Your task to perform on an android device: Go to Maps Image 0: 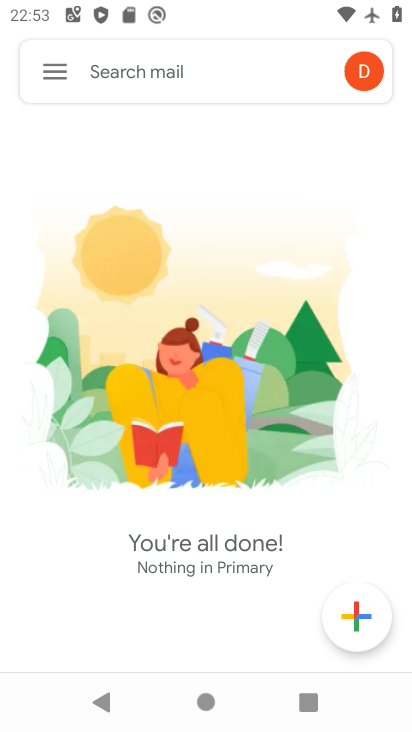
Step 0: press home button
Your task to perform on an android device: Go to Maps Image 1: 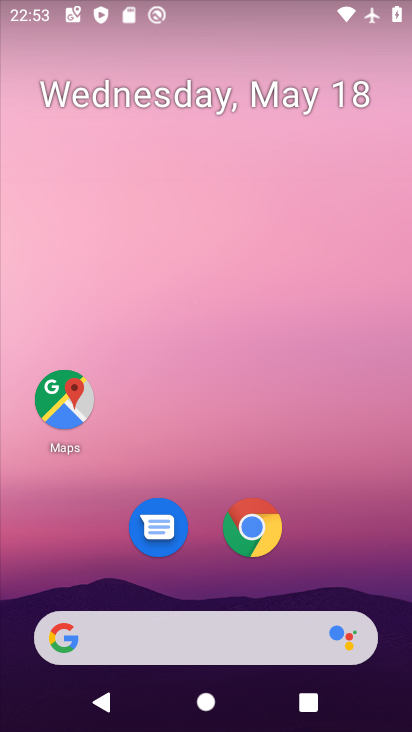
Step 1: click (63, 406)
Your task to perform on an android device: Go to Maps Image 2: 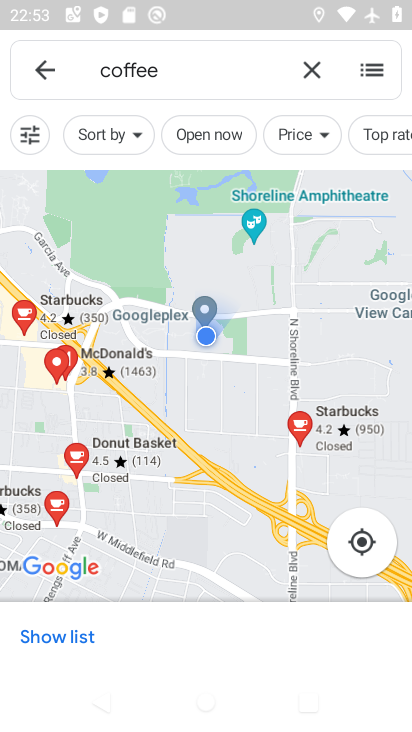
Step 2: click (316, 68)
Your task to perform on an android device: Go to Maps Image 3: 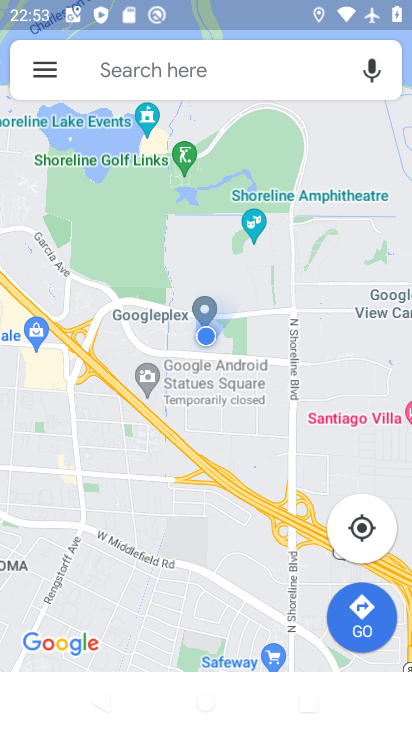
Step 3: task complete